Your task to perform on an android device: create a new album in the google photos Image 0: 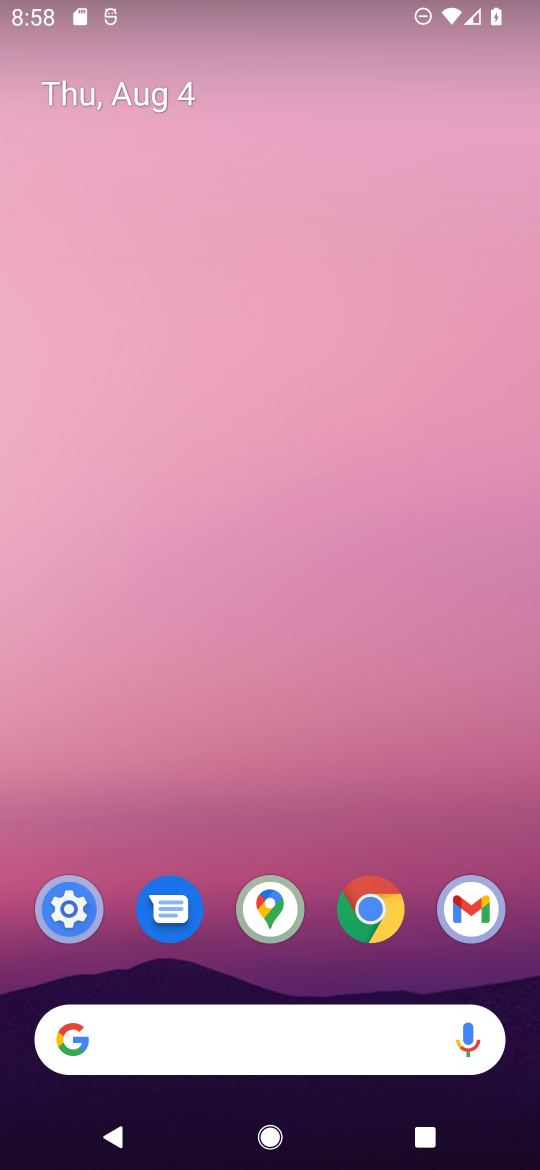
Step 0: press home button
Your task to perform on an android device: create a new album in the google photos Image 1: 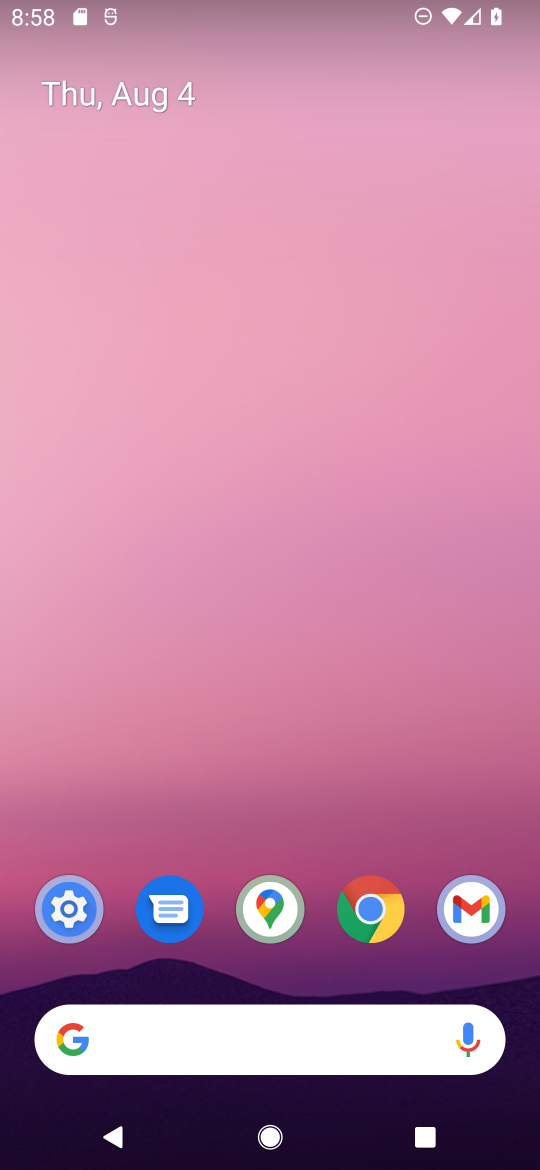
Step 1: drag from (322, 820) to (354, 231)
Your task to perform on an android device: create a new album in the google photos Image 2: 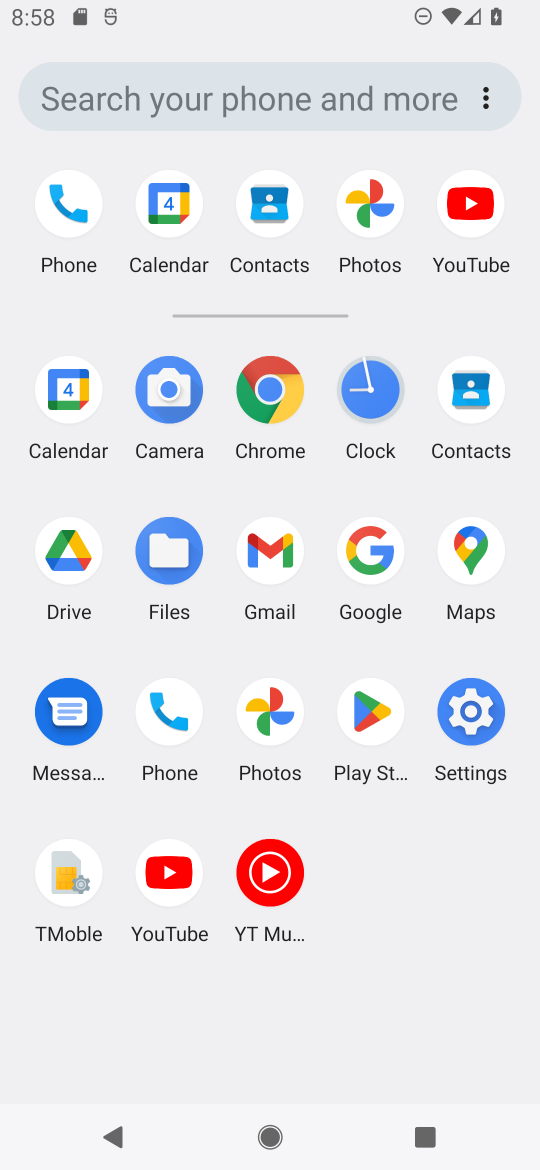
Step 2: click (276, 722)
Your task to perform on an android device: create a new album in the google photos Image 3: 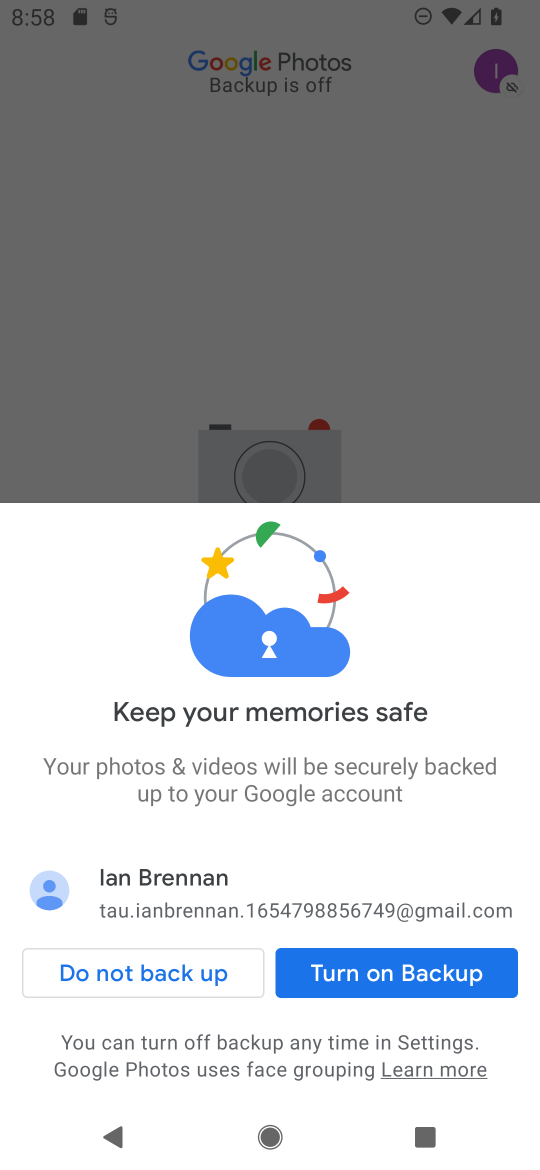
Step 3: click (195, 968)
Your task to perform on an android device: create a new album in the google photos Image 4: 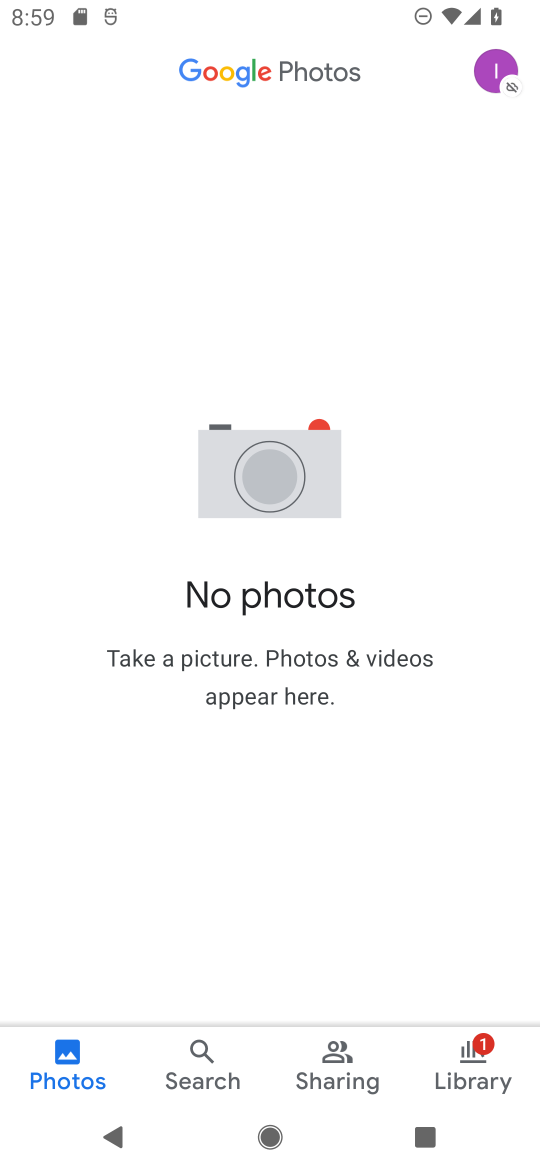
Step 4: click (477, 1061)
Your task to perform on an android device: create a new album in the google photos Image 5: 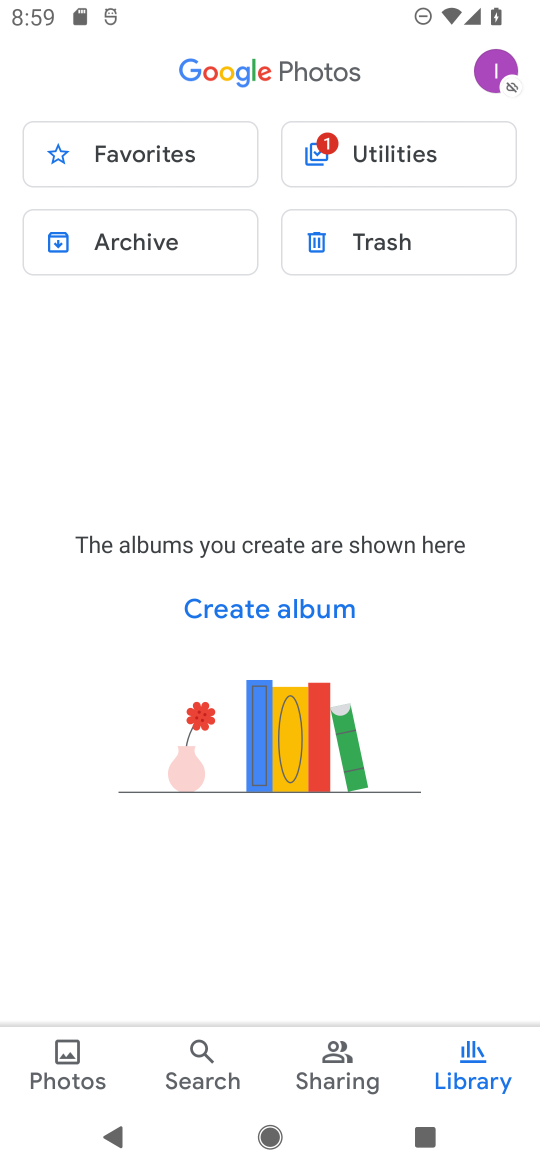
Step 5: click (274, 602)
Your task to perform on an android device: create a new album in the google photos Image 6: 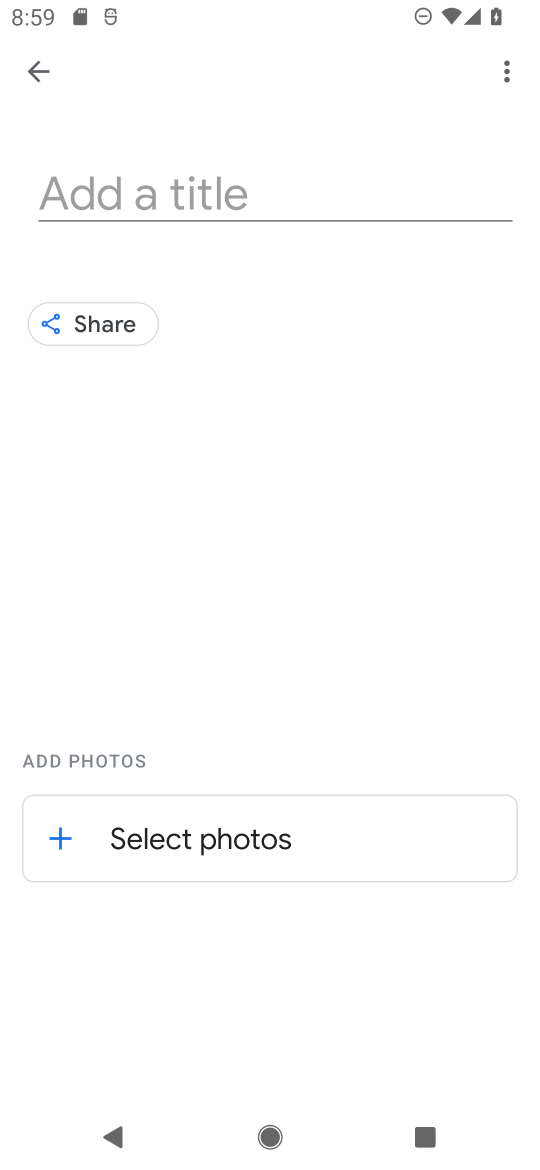
Step 6: click (233, 188)
Your task to perform on an android device: create a new album in the google photos Image 7: 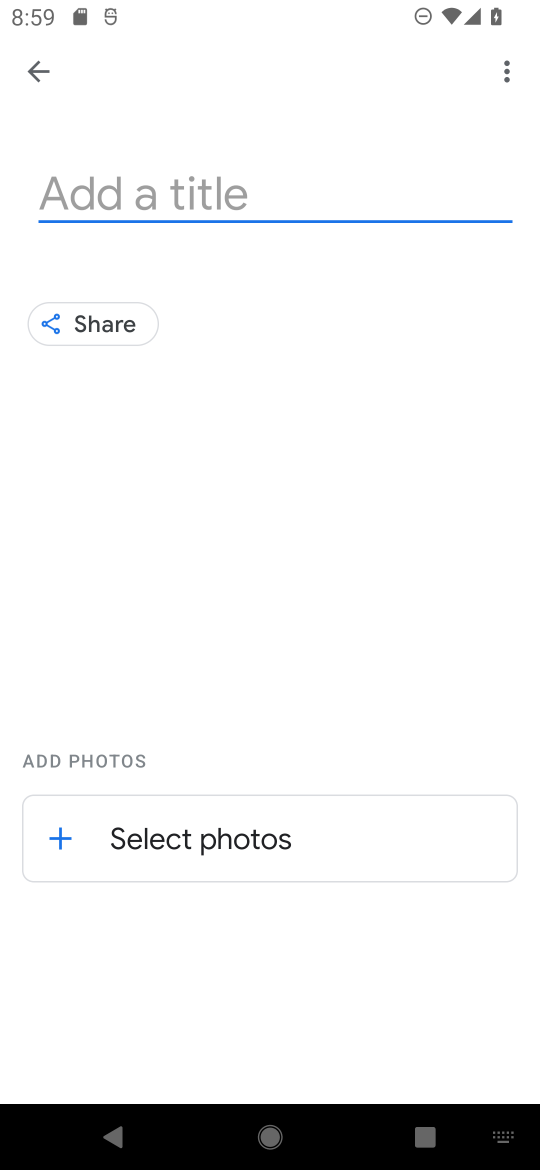
Step 7: type "fav"
Your task to perform on an android device: create a new album in the google photos Image 8: 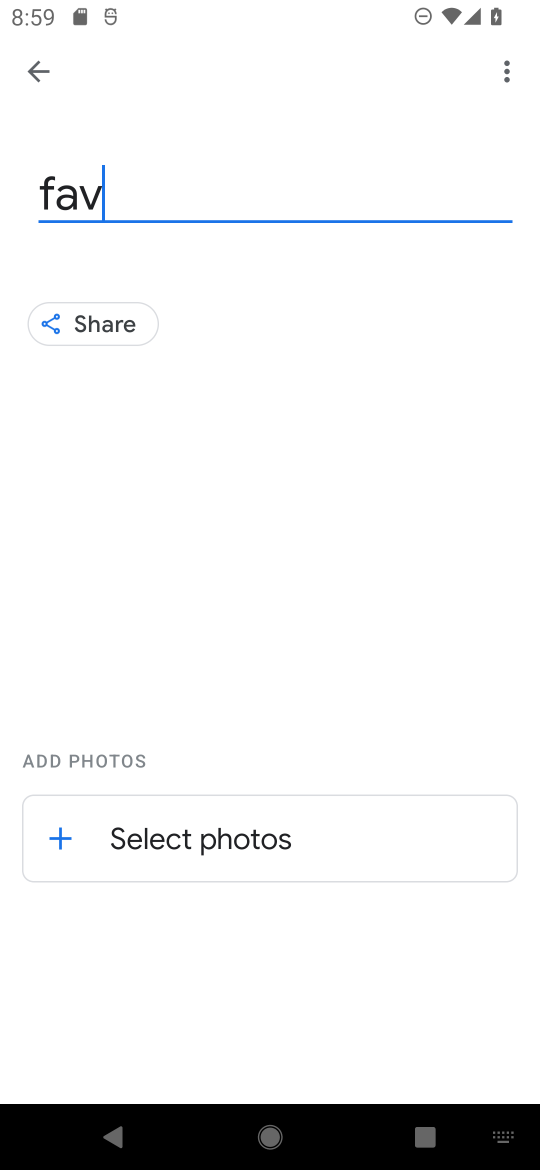
Step 8: click (257, 849)
Your task to perform on an android device: create a new album in the google photos Image 9: 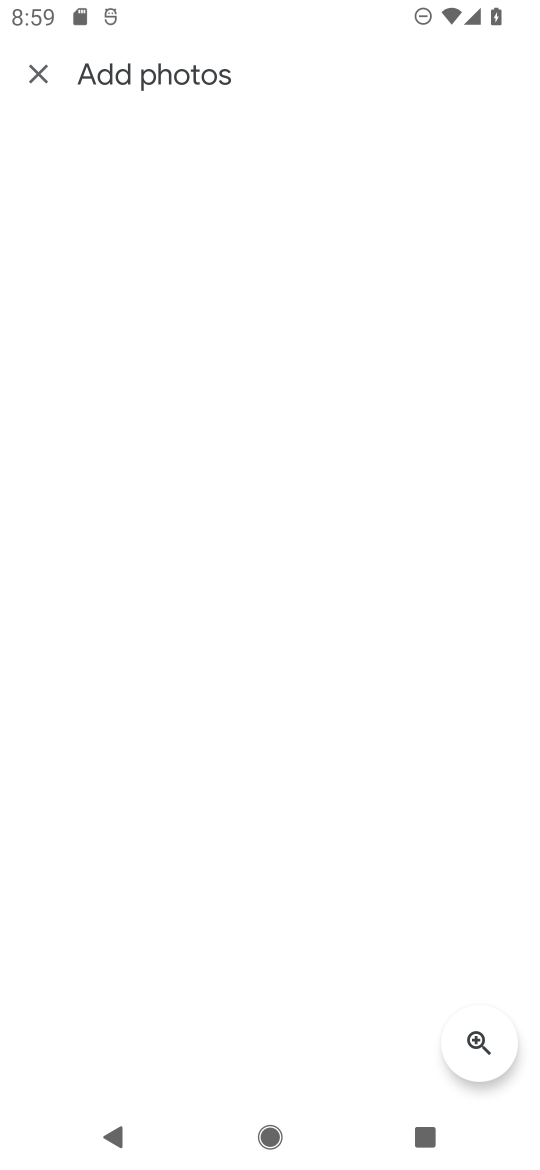
Step 9: task complete